Your task to perform on an android device: Show me the alarms in the clock app Image 0: 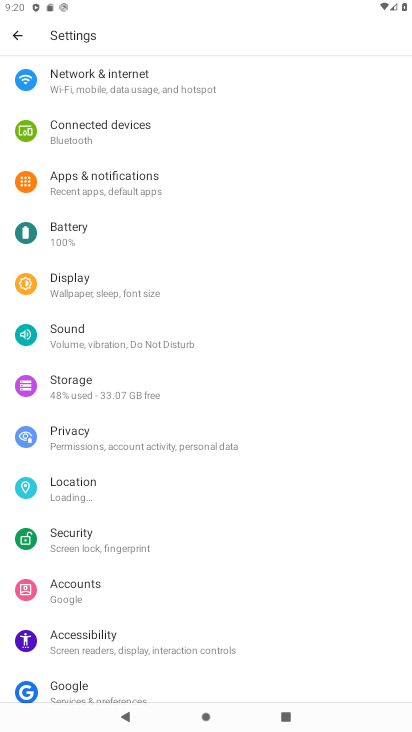
Step 0: press home button
Your task to perform on an android device: Show me the alarms in the clock app Image 1: 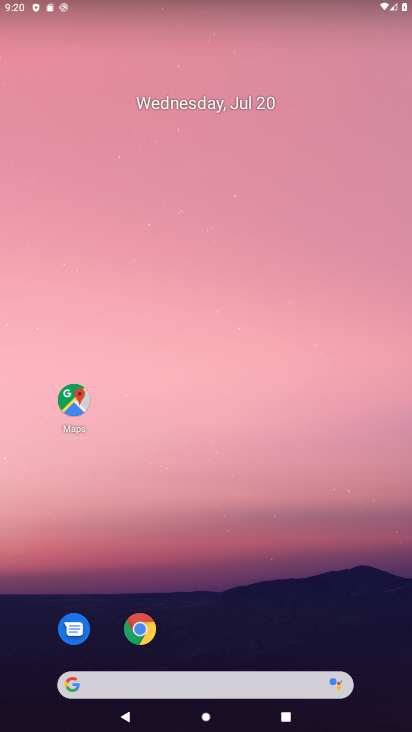
Step 1: drag from (263, 625) to (248, 233)
Your task to perform on an android device: Show me the alarms in the clock app Image 2: 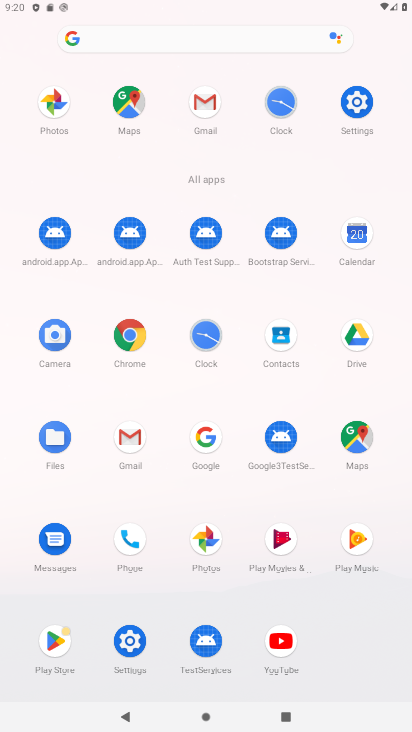
Step 2: click (295, 105)
Your task to perform on an android device: Show me the alarms in the clock app Image 3: 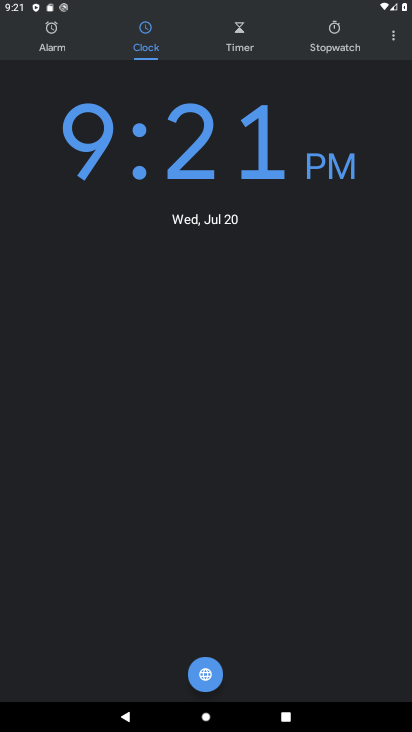
Step 3: click (68, 48)
Your task to perform on an android device: Show me the alarms in the clock app Image 4: 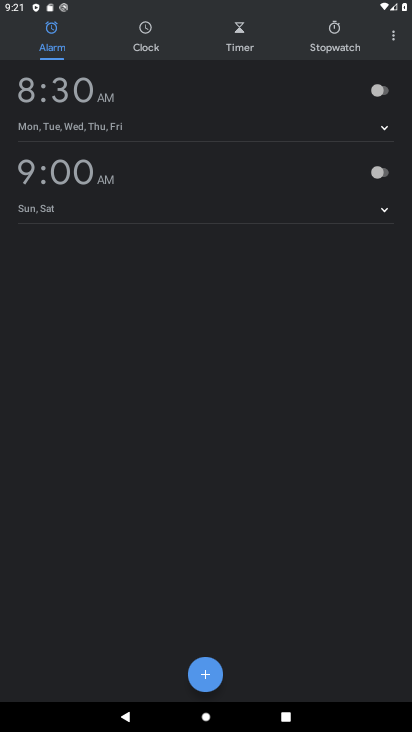
Step 4: task complete